Your task to perform on an android device: check storage Image 0: 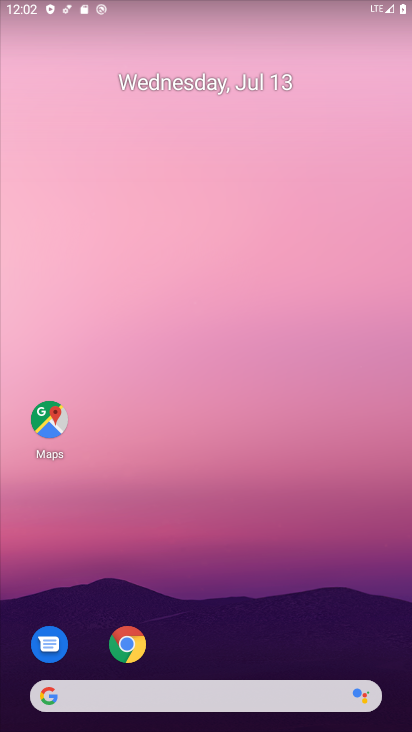
Step 0: drag from (236, 642) to (267, 39)
Your task to perform on an android device: check storage Image 1: 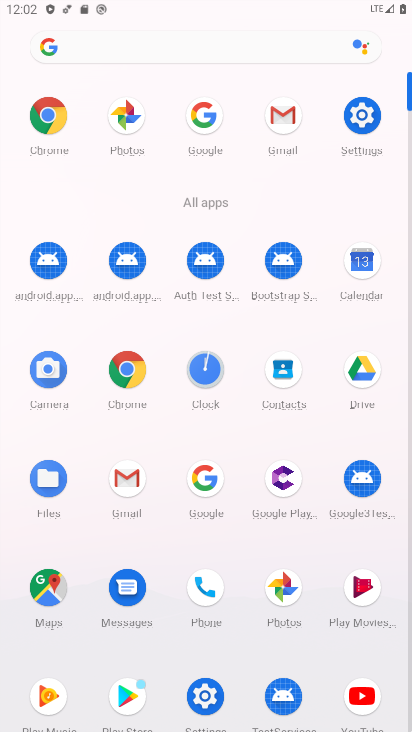
Step 1: click (359, 116)
Your task to perform on an android device: check storage Image 2: 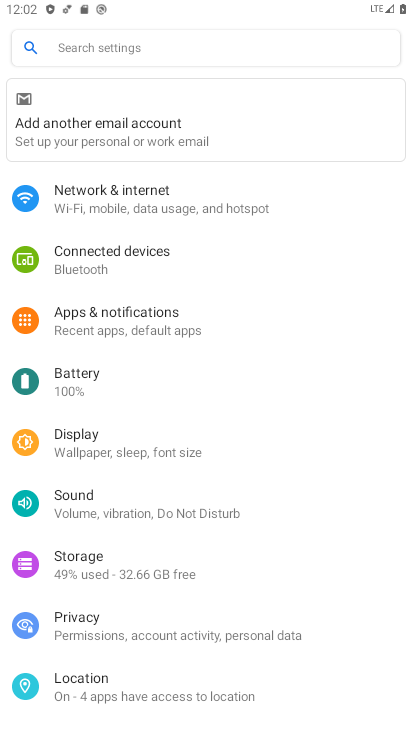
Step 2: click (97, 558)
Your task to perform on an android device: check storage Image 3: 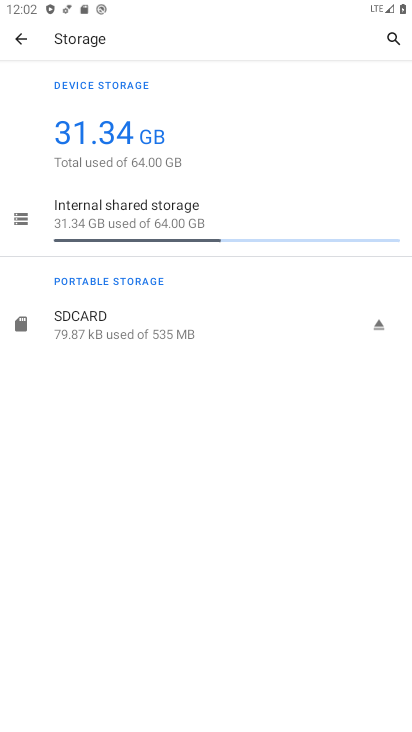
Step 3: task complete